Your task to perform on an android device: Is it going to rain tomorrow? Image 0: 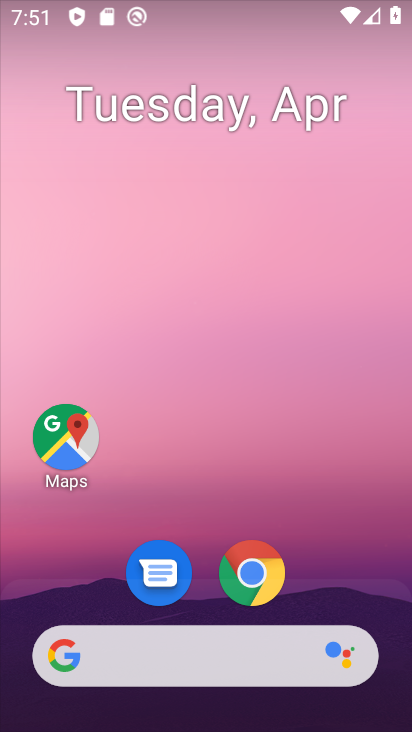
Step 0: click (71, 663)
Your task to perform on an android device: Is it going to rain tomorrow? Image 1: 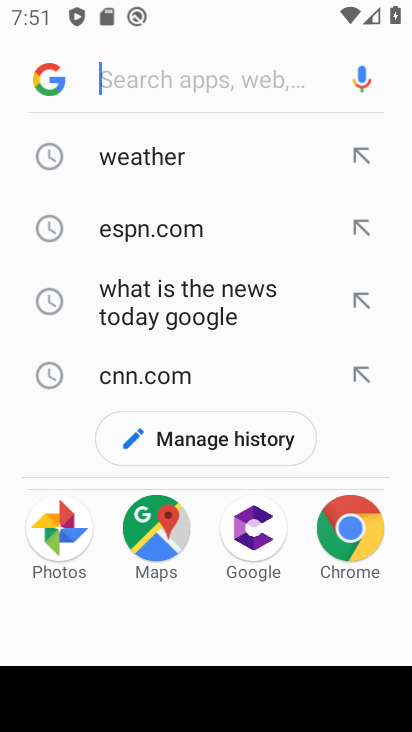
Step 1: click (50, 79)
Your task to perform on an android device: Is it going to rain tomorrow? Image 2: 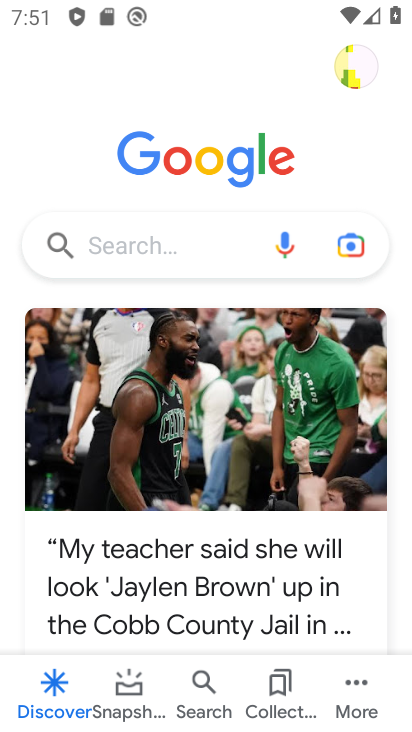
Step 2: press home button
Your task to perform on an android device: Is it going to rain tomorrow? Image 3: 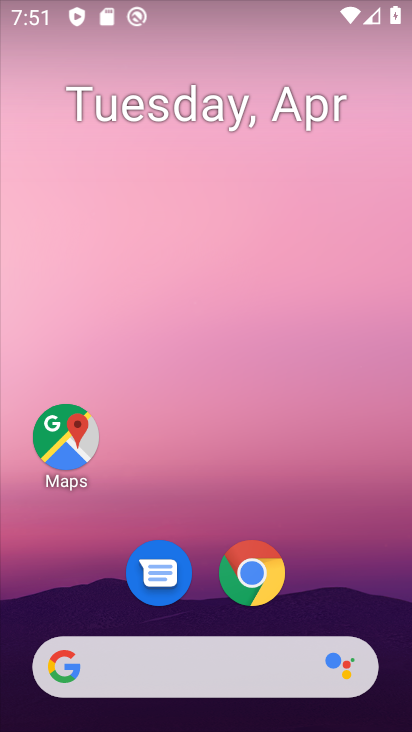
Step 3: drag from (46, 297) to (377, 340)
Your task to perform on an android device: Is it going to rain tomorrow? Image 4: 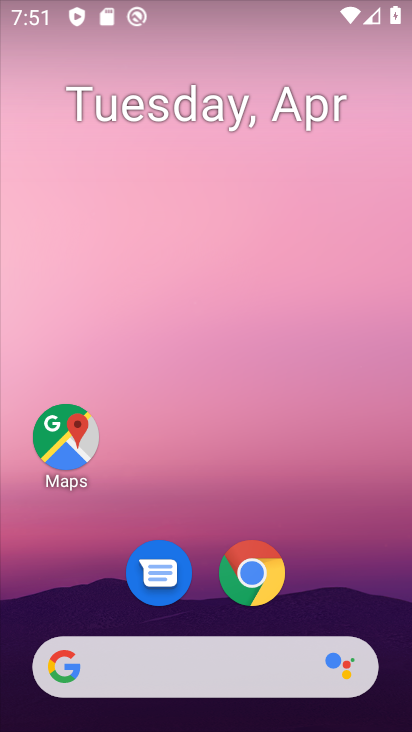
Step 4: drag from (62, 313) to (397, 413)
Your task to perform on an android device: Is it going to rain tomorrow? Image 5: 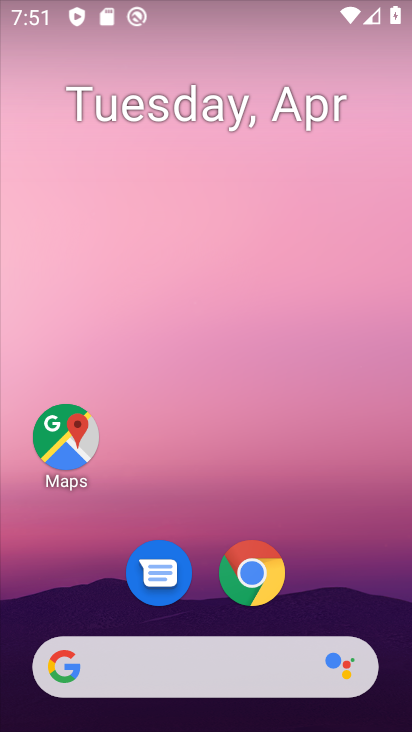
Step 5: drag from (16, 390) to (372, 398)
Your task to perform on an android device: Is it going to rain tomorrow? Image 6: 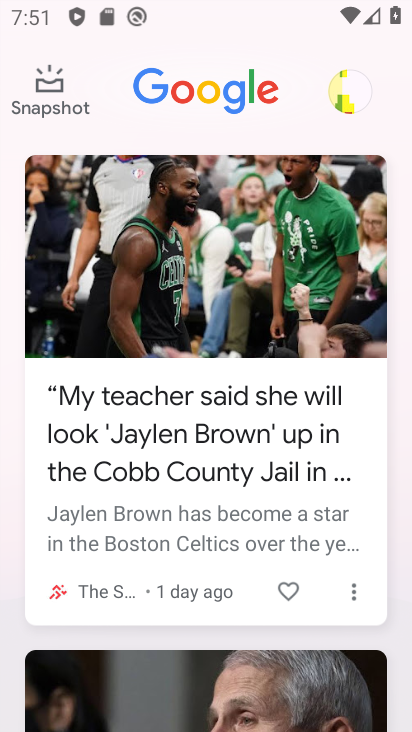
Step 6: click (14, 602)
Your task to perform on an android device: Is it going to rain tomorrow? Image 7: 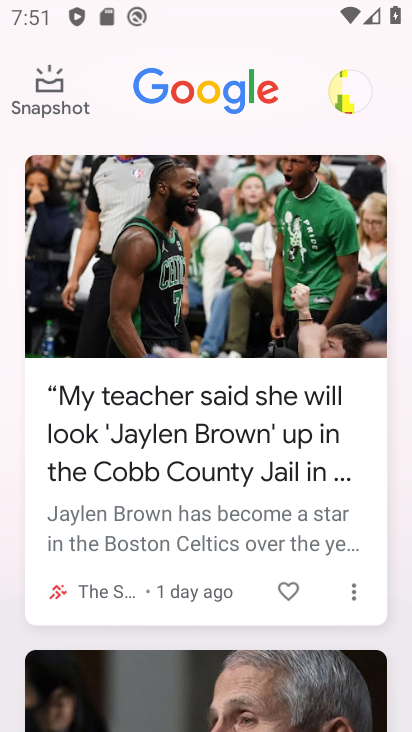
Step 7: click (202, 90)
Your task to perform on an android device: Is it going to rain tomorrow? Image 8: 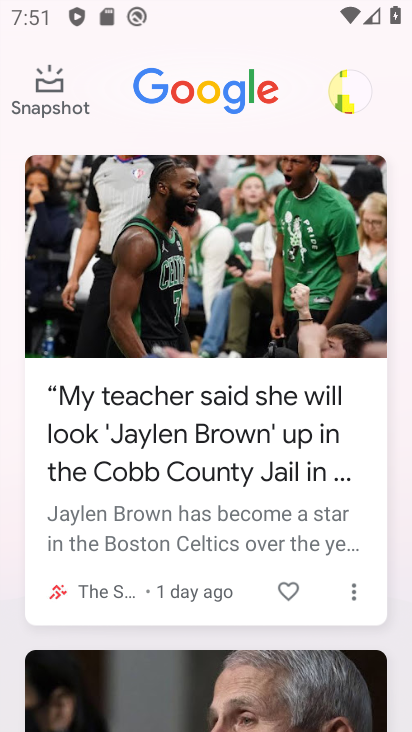
Step 8: click (157, 91)
Your task to perform on an android device: Is it going to rain tomorrow? Image 9: 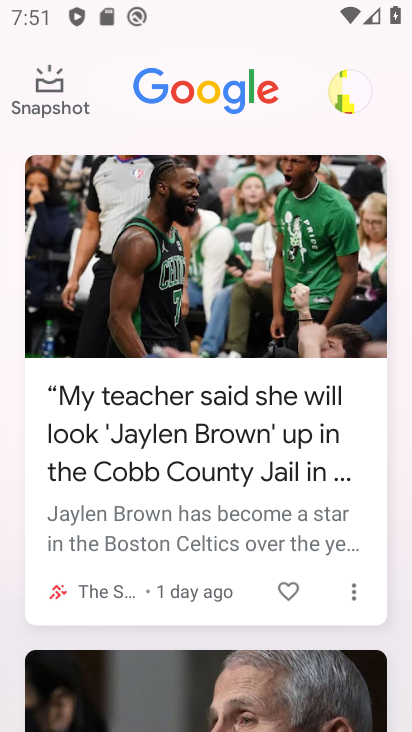
Step 9: click (157, 91)
Your task to perform on an android device: Is it going to rain tomorrow? Image 10: 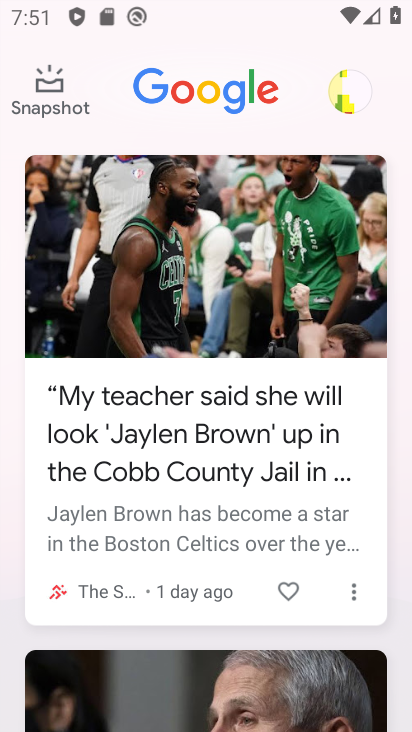
Step 10: click (254, 110)
Your task to perform on an android device: Is it going to rain tomorrow? Image 11: 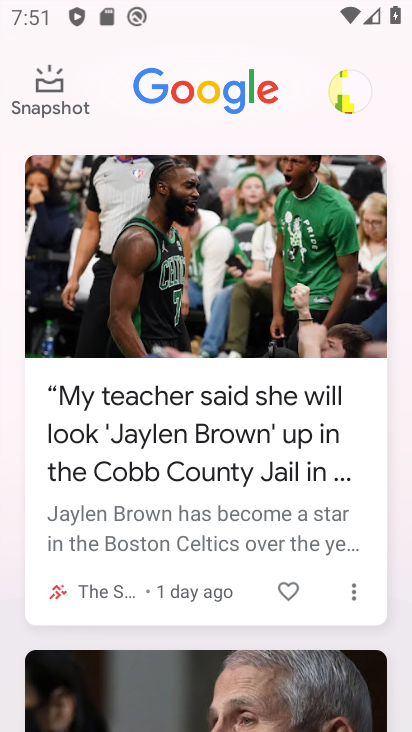
Step 11: click (254, 110)
Your task to perform on an android device: Is it going to rain tomorrow? Image 12: 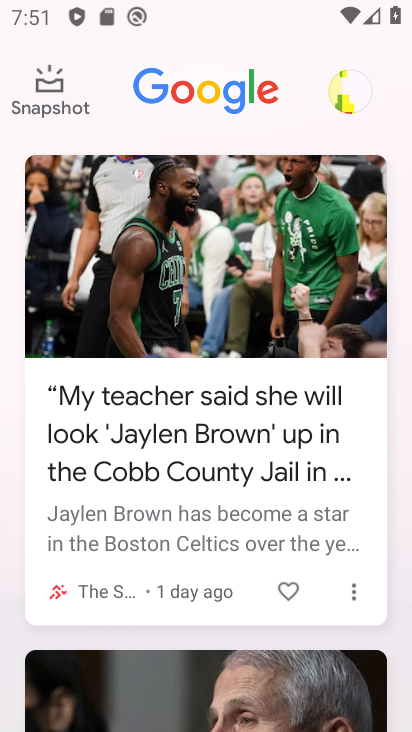
Step 12: drag from (396, 545) to (33, 637)
Your task to perform on an android device: Is it going to rain tomorrow? Image 13: 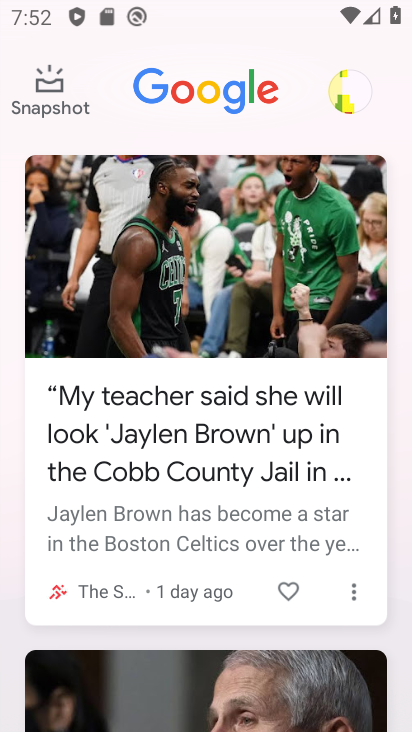
Step 13: press home button
Your task to perform on an android device: Is it going to rain tomorrow? Image 14: 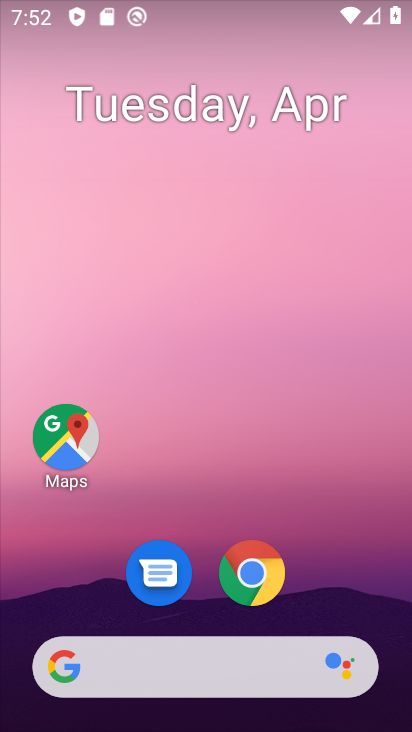
Step 14: click (182, 662)
Your task to perform on an android device: Is it going to rain tomorrow? Image 15: 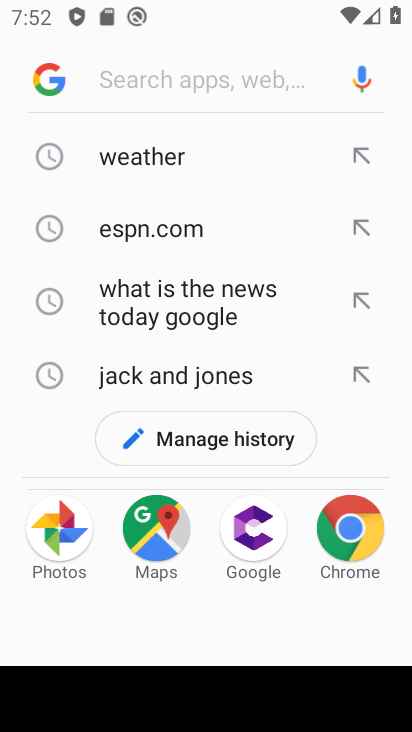
Step 15: click (52, 91)
Your task to perform on an android device: Is it going to rain tomorrow? Image 16: 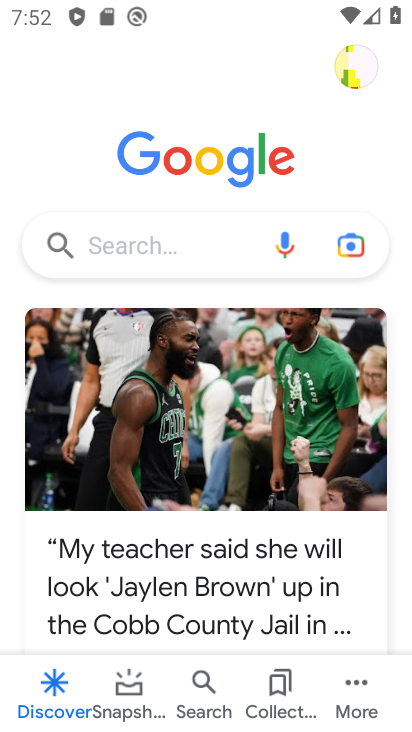
Step 16: click (132, 691)
Your task to perform on an android device: Is it going to rain tomorrow? Image 17: 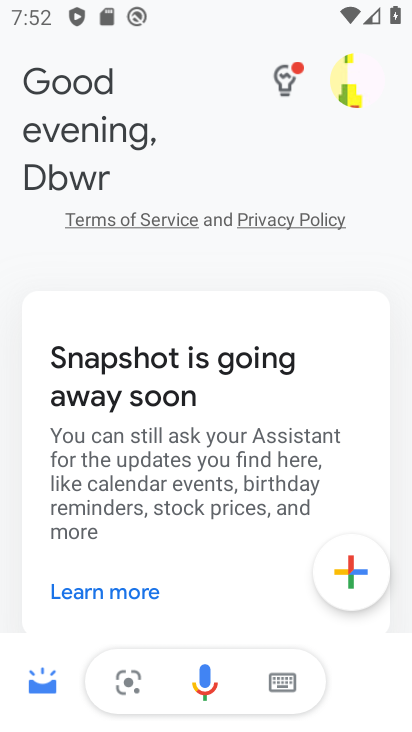
Step 17: press back button
Your task to perform on an android device: Is it going to rain tomorrow? Image 18: 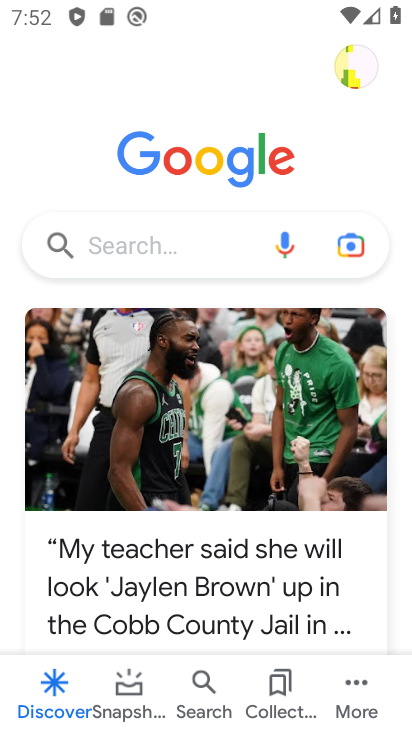
Step 18: click (115, 681)
Your task to perform on an android device: Is it going to rain tomorrow? Image 19: 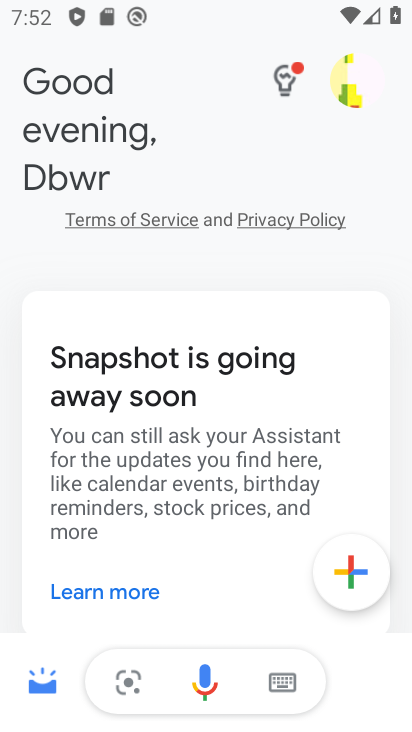
Step 19: click (197, 687)
Your task to perform on an android device: Is it going to rain tomorrow? Image 20: 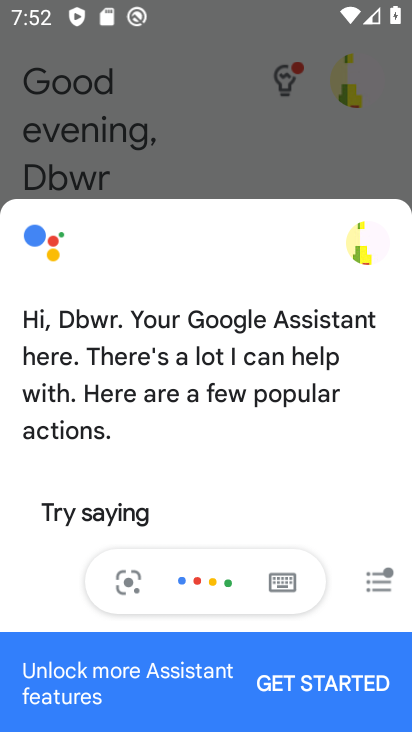
Step 20: click (370, 656)
Your task to perform on an android device: Is it going to rain tomorrow? Image 21: 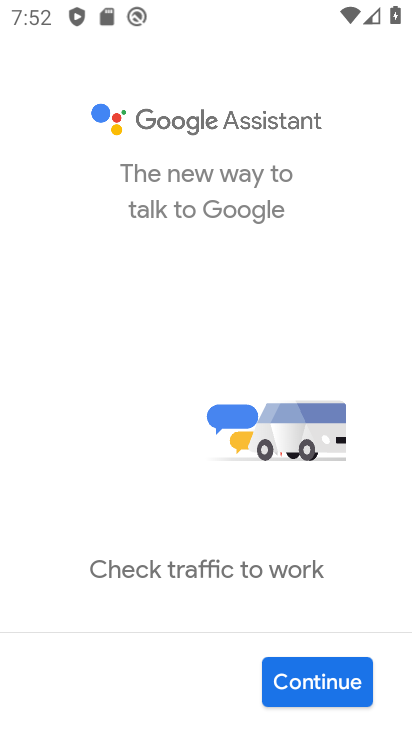
Step 21: press home button
Your task to perform on an android device: Is it going to rain tomorrow? Image 22: 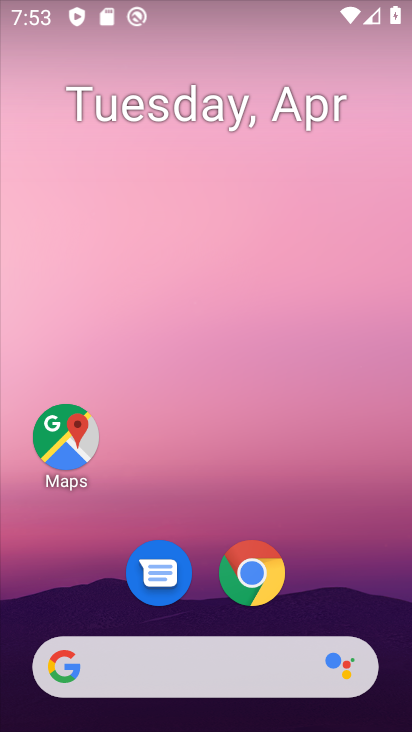
Step 22: click (125, 658)
Your task to perform on an android device: Is it going to rain tomorrow? Image 23: 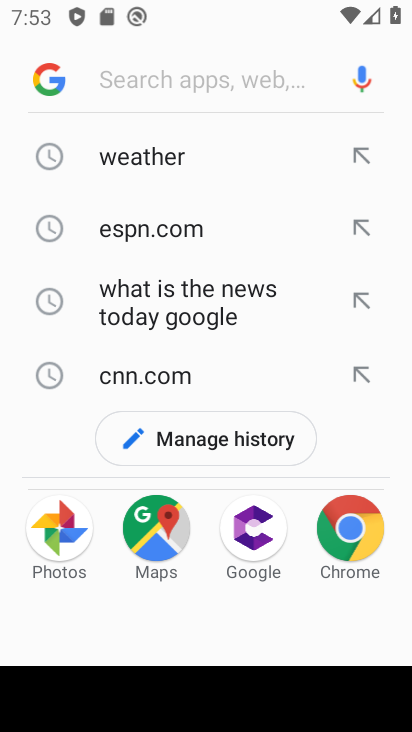
Step 23: click (142, 171)
Your task to perform on an android device: Is it going to rain tomorrow? Image 24: 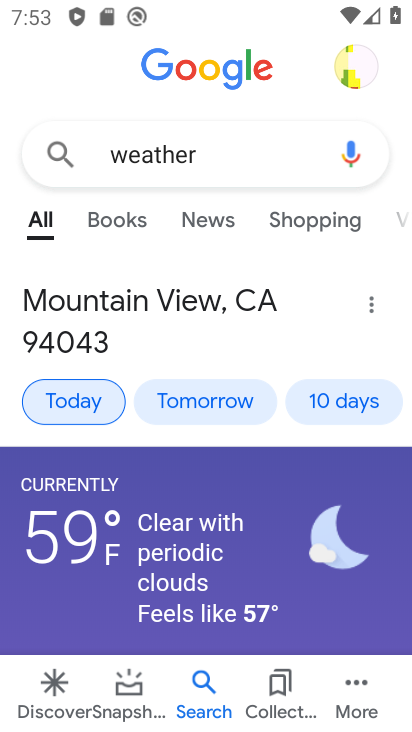
Step 24: click (239, 416)
Your task to perform on an android device: Is it going to rain tomorrow? Image 25: 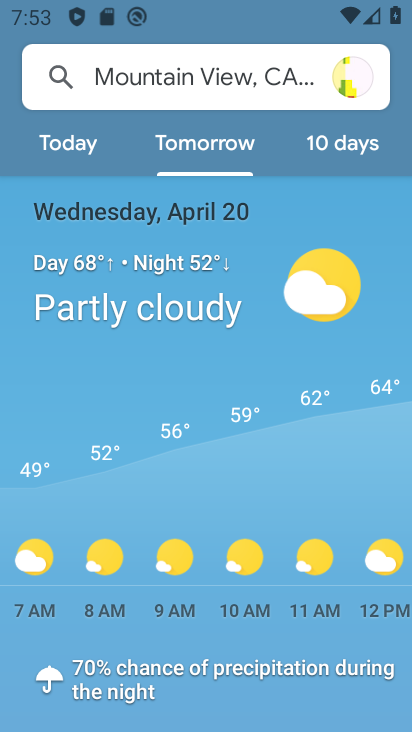
Step 25: task complete